Your task to perform on an android device: turn on showing notifications on the lock screen Image 0: 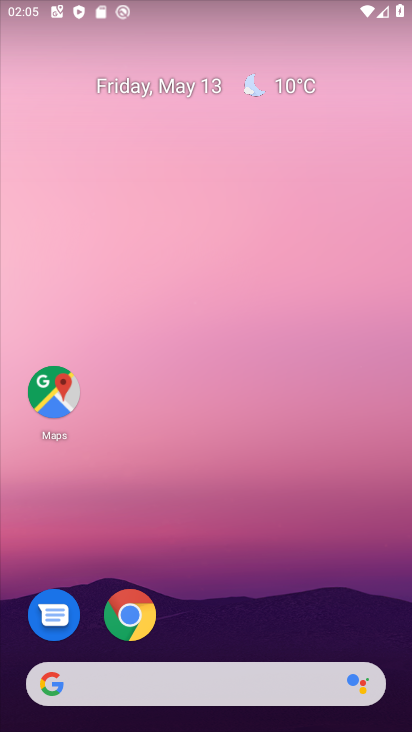
Step 0: drag from (214, 579) to (4, 108)
Your task to perform on an android device: turn on showing notifications on the lock screen Image 1: 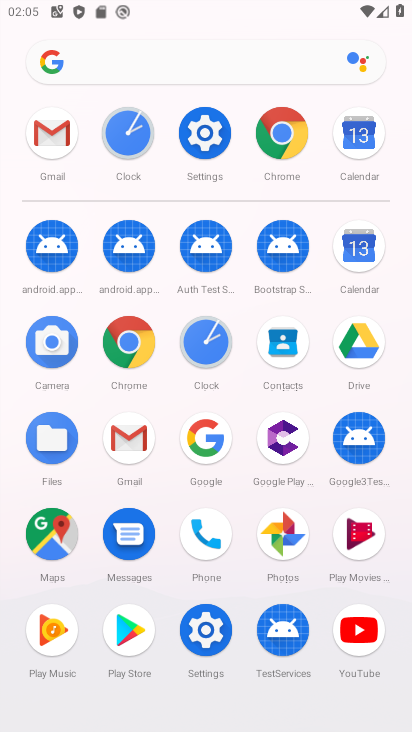
Step 1: click (207, 625)
Your task to perform on an android device: turn on showing notifications on the lock screen Image 2: 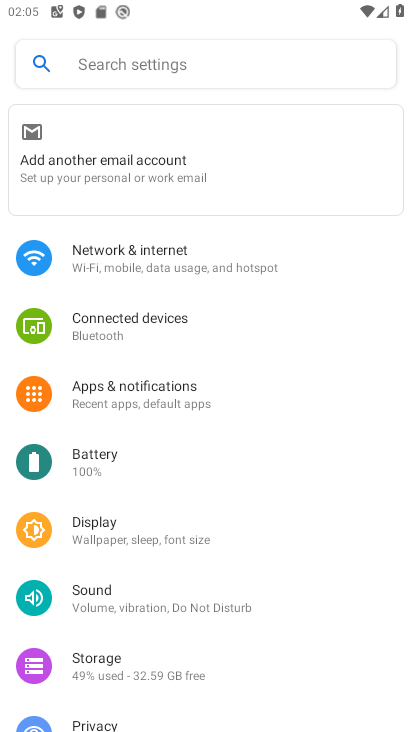
Step 2: click (113, 408)
Your task to perform on an android device: turn on showing notifications on the lock screen Image 3: 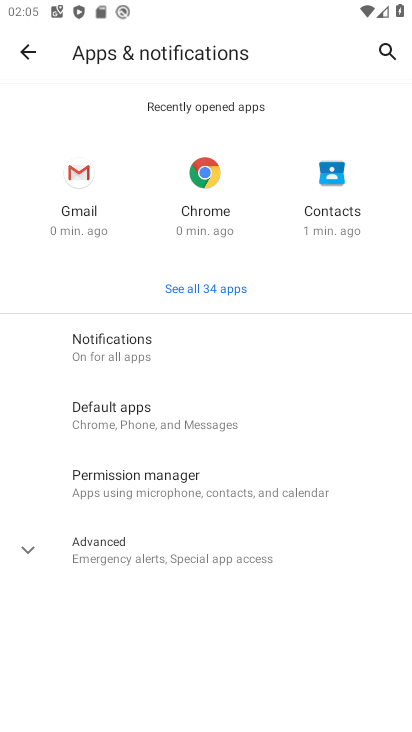
Step 3: click (107, 358)
Your task to perform on an android device: turn on showing notifications on the lock screen Image 4: 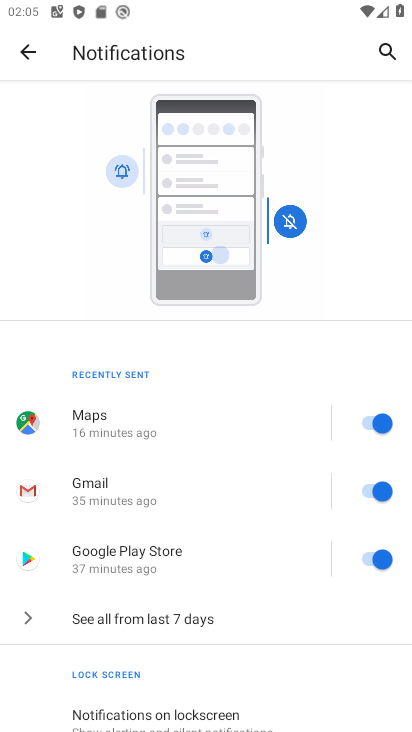
Step 4: click (132, 712)
Your task to perform on an android device: turn on showing notifications on the lock screen Image 5: 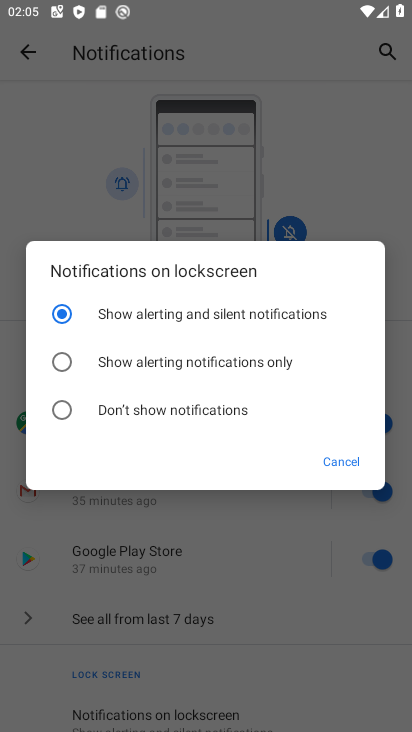
Step 5: task complete